Your task to perform on an android device: manage bookmarks in the chrome app Image 0: 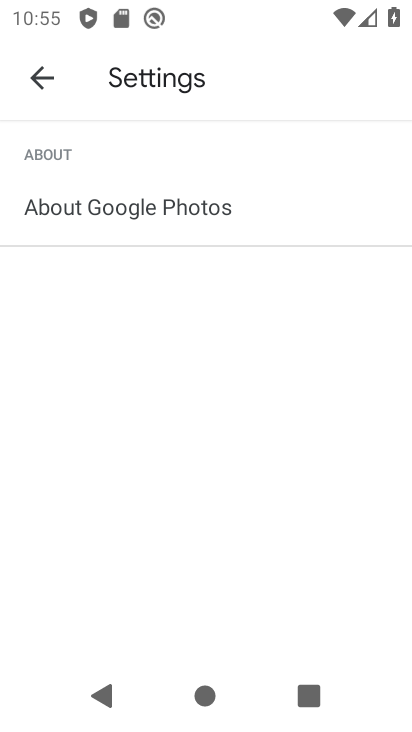
Step 0: press home button
Your task to perform on an android device: manage bookmarks in the chrome app Image 1: 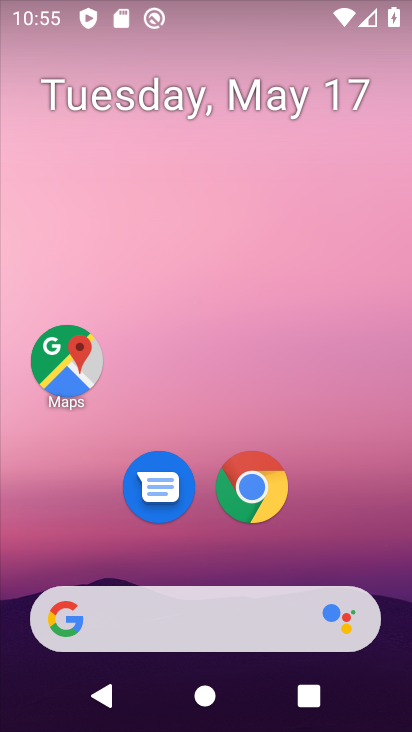
Step 1: drag from (163, 387) to (235, 75)
Your task to perform on an android device: manage bookmarks in the chrome app Image 2: 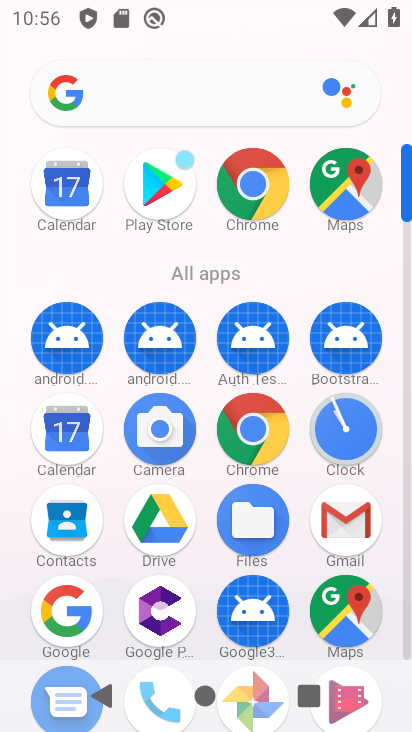
Step 2: click (253, 214)
Your task to perform on an android device: manage bookmarks in the chrome app Image 3: 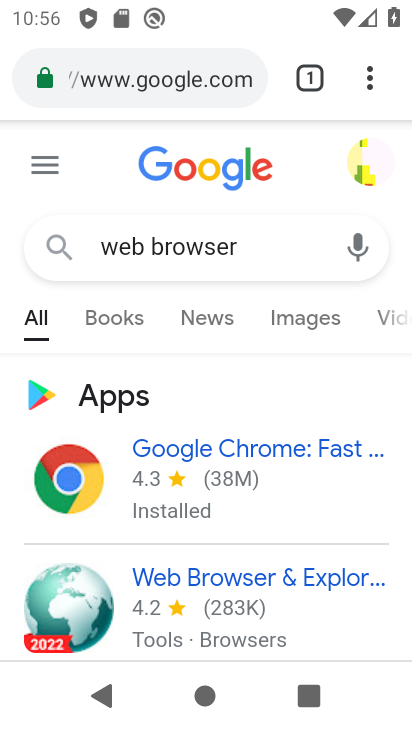
Step 3: task complete